Your task to perform on an android device: Do I have any events this weekend? Image 0: 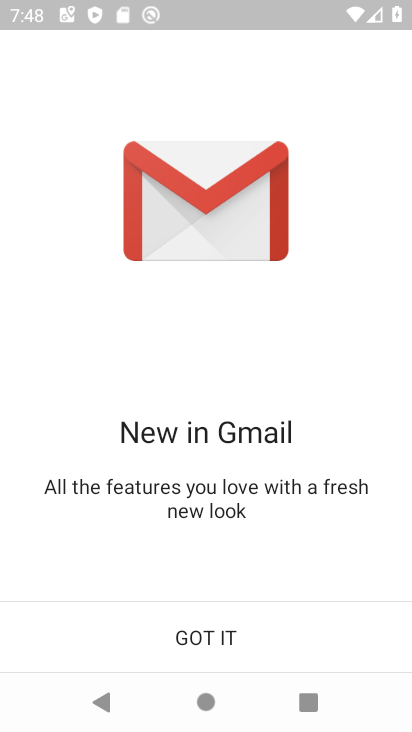
Step 0: press home button
Your task to perform on an android device: Do I have any events this weekend? Image 1: 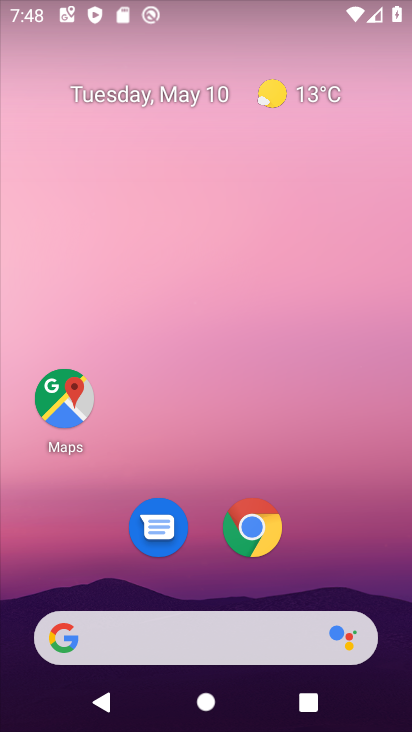
Step 1: drag from (32, 531) to (229, 128)
Your task to perform on an android device: Do I have any events this weekend? Image 2: 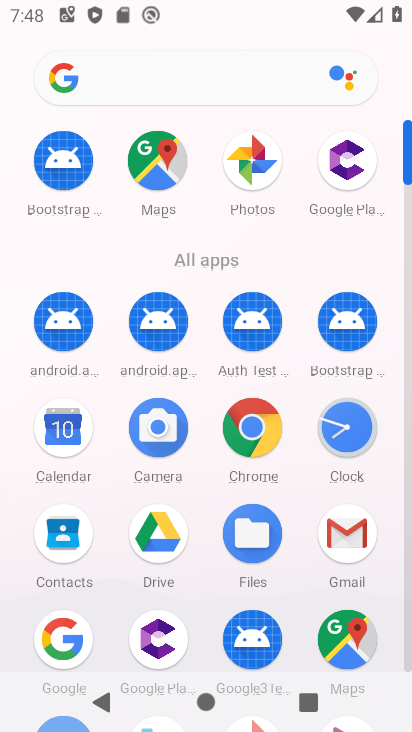
Step 2: click (70, 430)
Your task to perform on an android device: Do I have any events this weekend? Image 3: 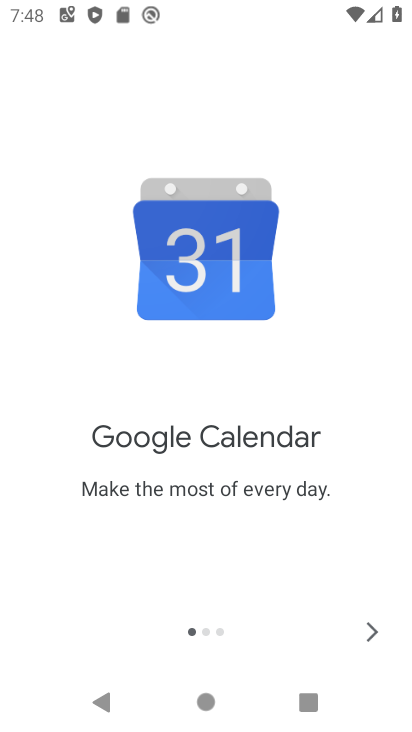
Step 3: click (370, 626)
Your task to perform on an android device: Do I have any events this weekend? Image 4: 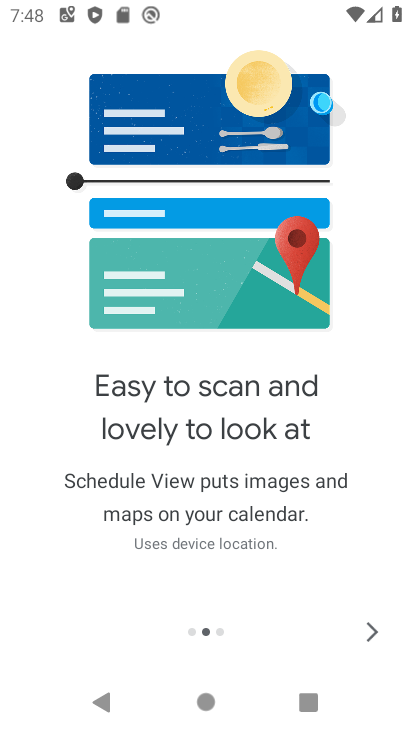
Step 4: click (370, 626)
Your task to perform on an android device: Do I have any events this weekend? Image 5: 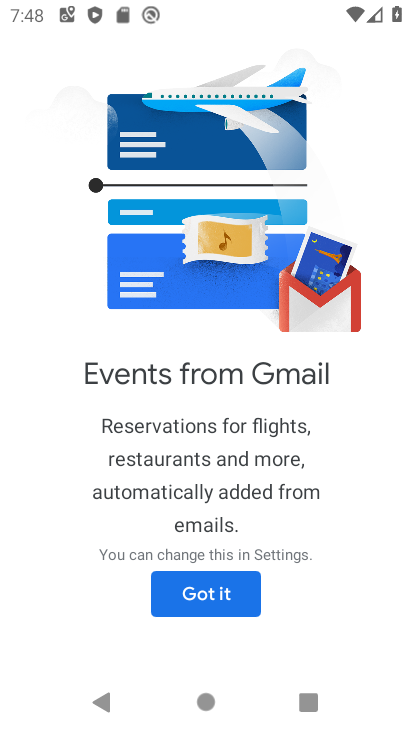
Step 5: click (241, 595)
Your task to perform on an android device: Do I have any events this weekend? Image 6: 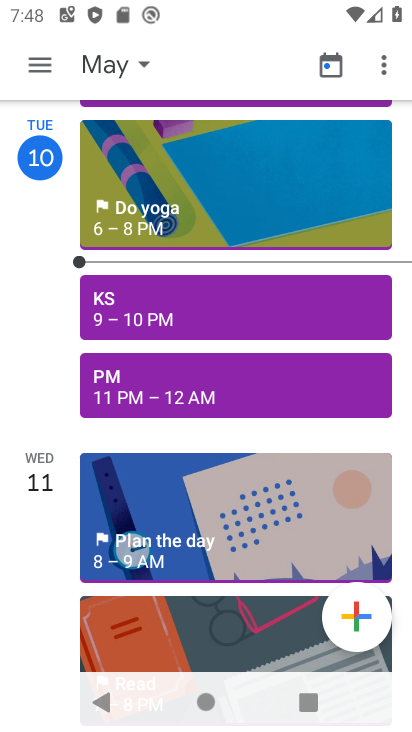
Step 6: task complete